Your task to perform on an android device: Open sound settings Image 0: 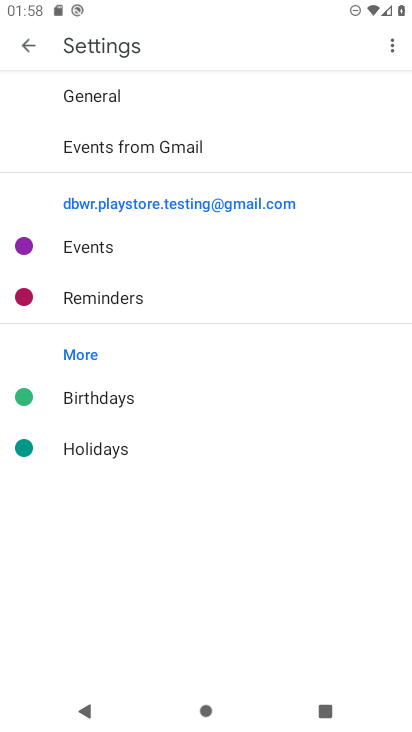
Step 0: press home button
Your task to perform on an android device: Open sound settings Image 1: 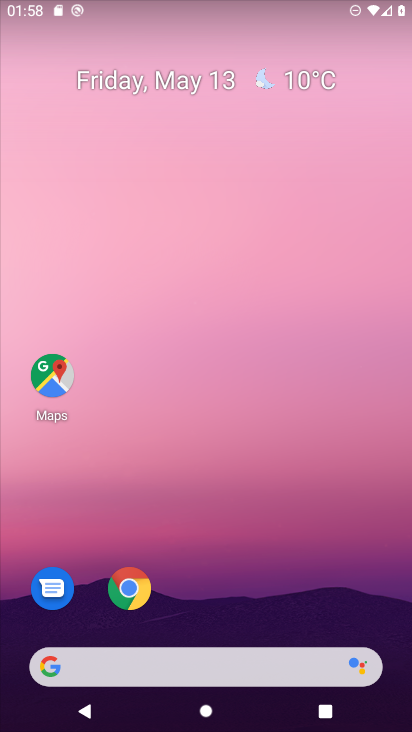
Step 1: drag from (269, 572) to (310, 97)
Your task to perform on an android device: Open sound settings Image 2: 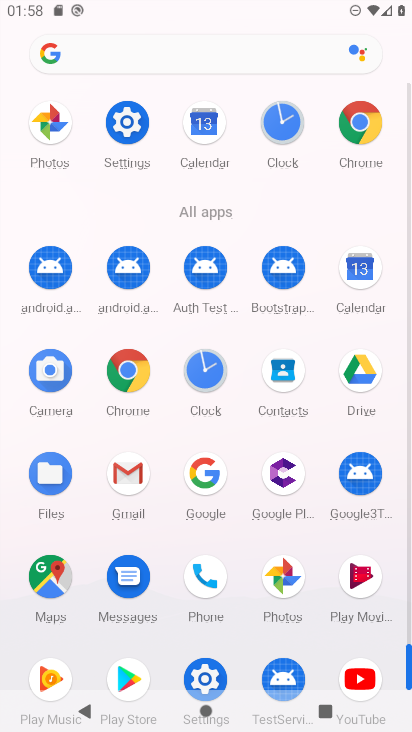
Step 2: click (124, 112)
Your task to perform on an android device: Open sound settings Image 3: 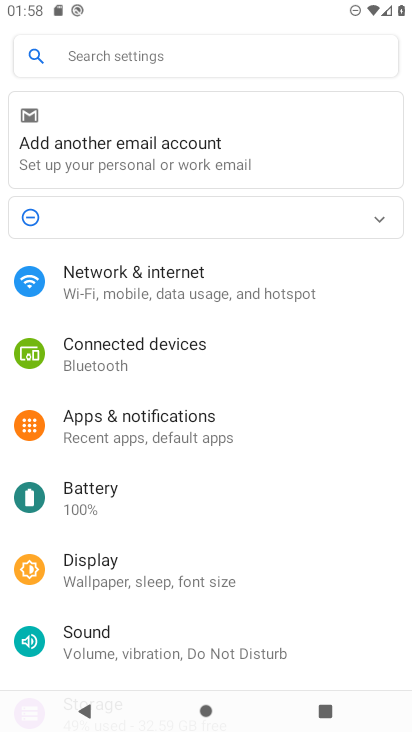
Step 3: drag from (297, 476) to (403, 212)
Your task to perform on an android device: Open sound settings Image 4: 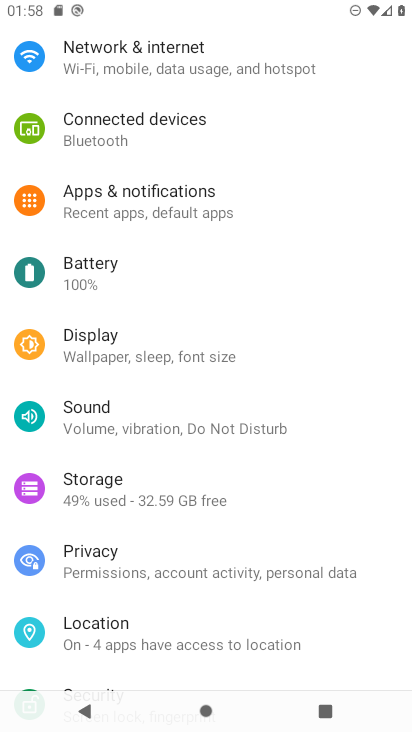
Step 4: click (104, 415)
Your task to perform on an android device: Open sound settings Image 5: 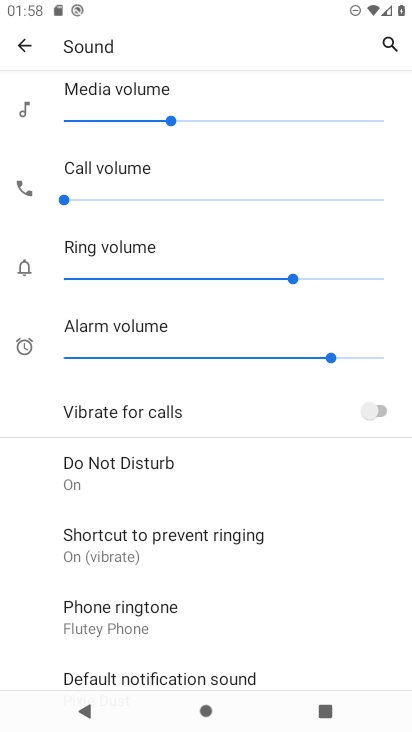
Step 5: task complete